Your task to perform on an android device: What's the weather like in Chicago? Image 0: 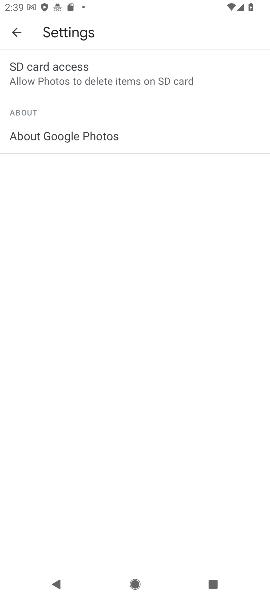
Step 0: press home button
Your task to perform on an android device: What's the weather like in Chicago? Image 1: 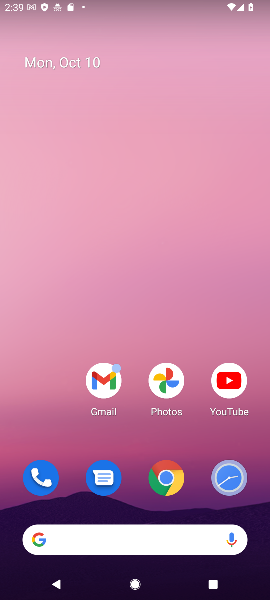
Step 1: click (114, 543)
Your task to perform on an android device: What's the weather like in Chicago? Image 2: 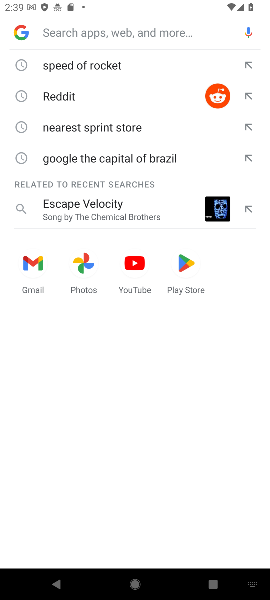
Step 2: click (19, 29)
Your task to perform on an android device: What's the weather like in Chicago? Image 3: 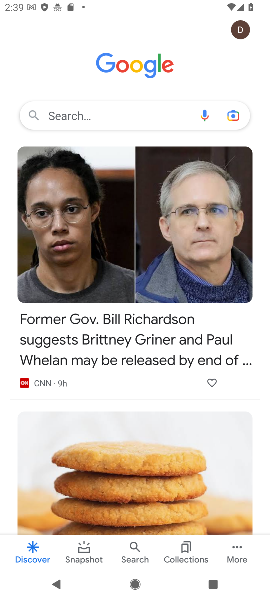
Step 3: click (80, 111)
Your task to perform on an android device: What's the weather like in Chicago? Image 4: 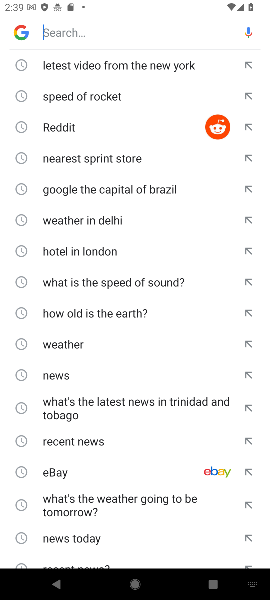
Step 4: type "What's the weather like in Chicago?"
Your task to perform on an android device: What's the weather like in Chicago? Image 5: 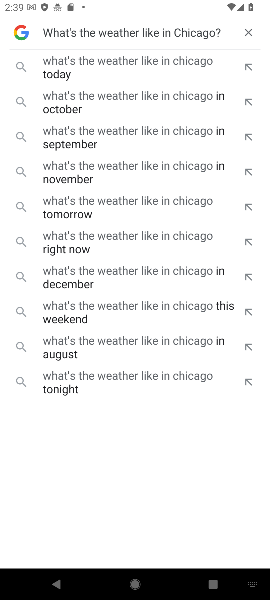
Step 5: click (124, 68)
Your task to perform on an android device: What's the weather like in Chicago? Image 6: 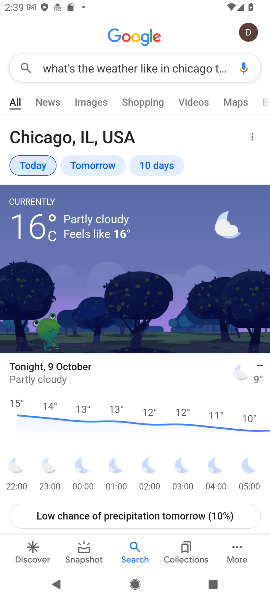
Step 6: task complete